Your task to perform on an android device: snooze an email in the gmail app Image 0: 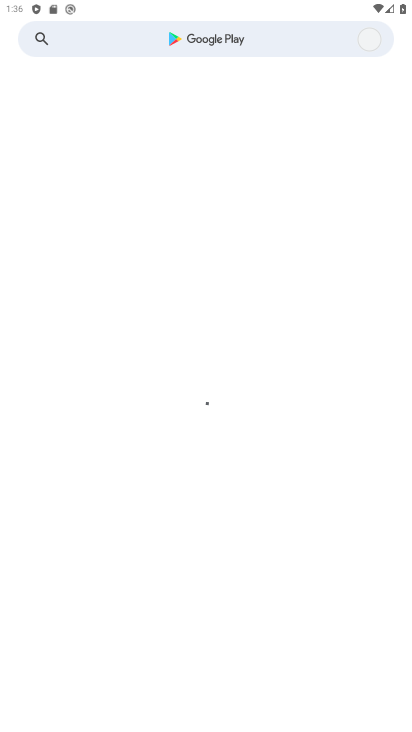
Step 0: press home button
Your task to perform on an android device: snooze an email in the gmail app Image 1: 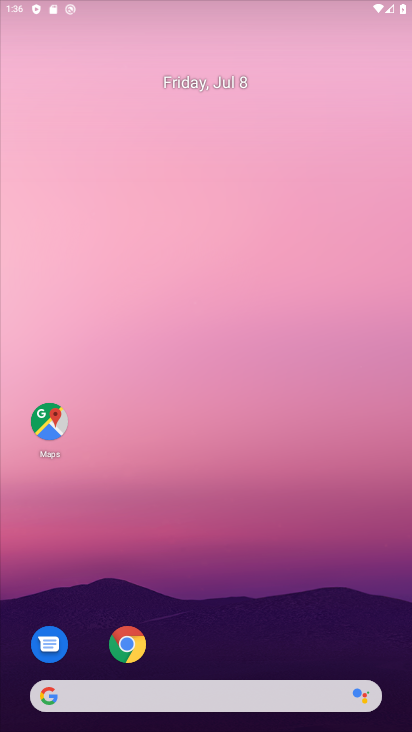
Step 1: drag from (241, 660) to (218, 187)
Your task to perform on an android device: snooze an email in the gmail app Image 2: 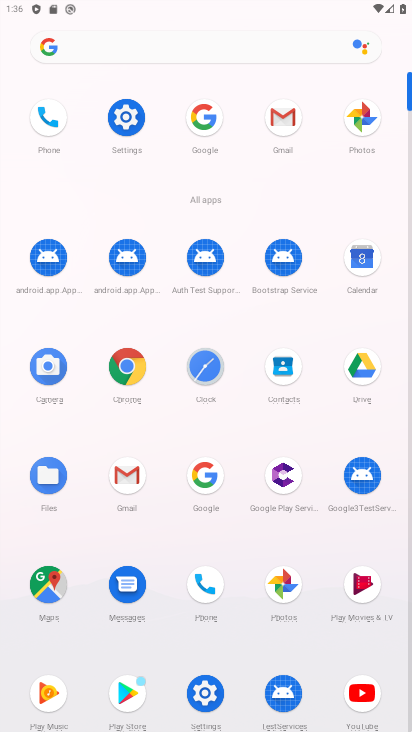
Step 2: click (280, 116)
Your task to perform on an android device: snooze an email in the gmail app Image 3: 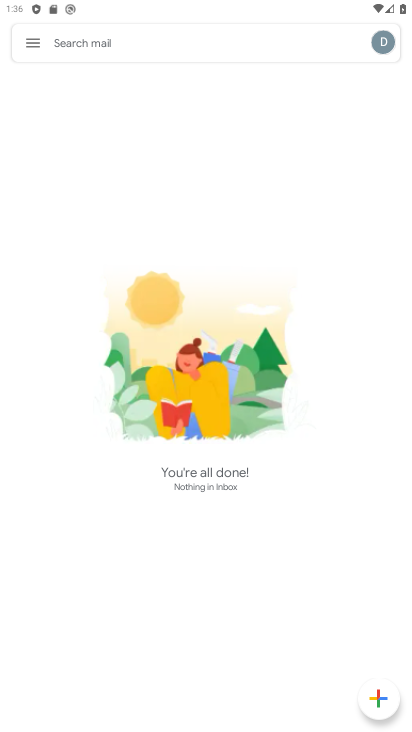
Step 3: click (32, 40)
Your task to perform on an android device: snooze an email in the gmail app Image 4: 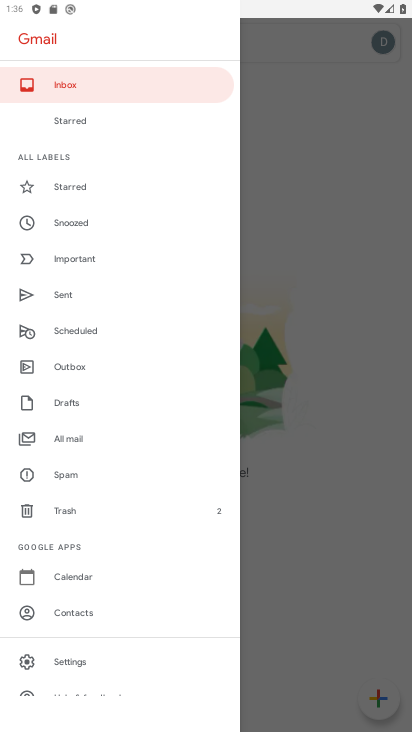
Step 4: click (58, 443)
Your task to perform on an android device: snooze an email in the gmail app Image 5: 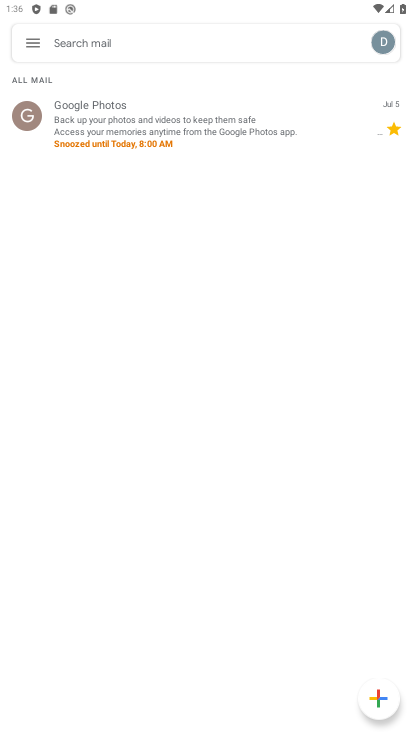
Step 5: click (162, 116)
Your task to perform on an android device: snooze an email in the gmail app Image 6: 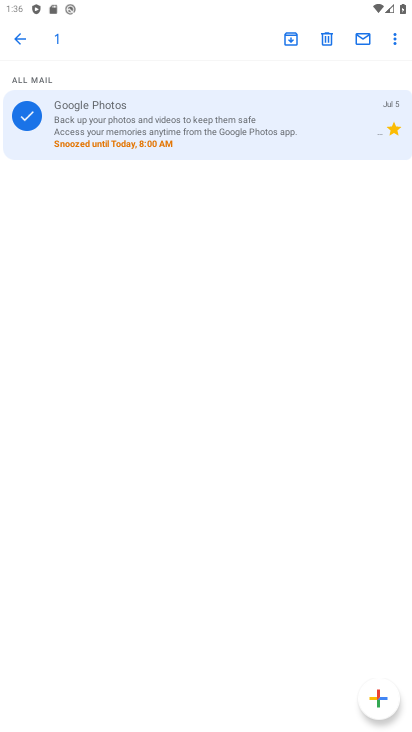
Step 6: click (390, 35)
Your task to perform on an android device: snooze an email in the gmail app Image 7: 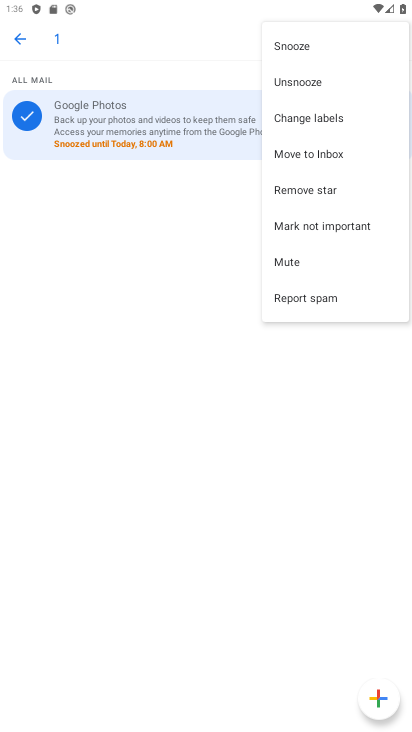
Step 7: click (294, 49)
Your task to perform on an android device: snooze an email in the gmail app Image 8: 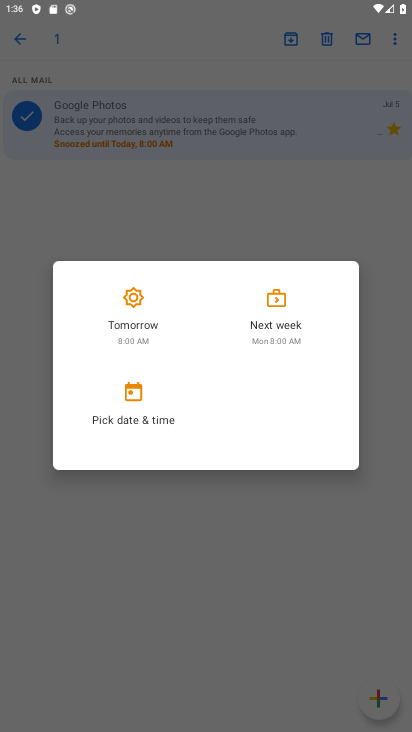
Step 8: click (112, 320)
Your task to perform on an android device: snooze an email in the gmail app Image 9: 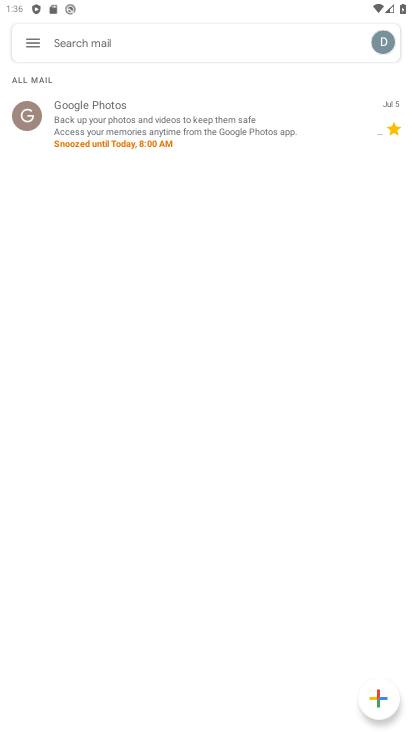
Step 9: task complete